Your task to perform on an android device: Is it going to rain this weekend? Image 0: 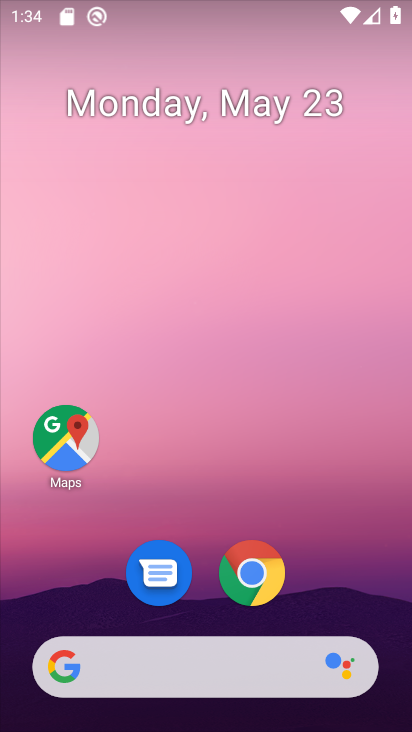
Step 0: click (211, 665)
Your task to perform on an android device: Is it going to rain this weekend? Image 1: 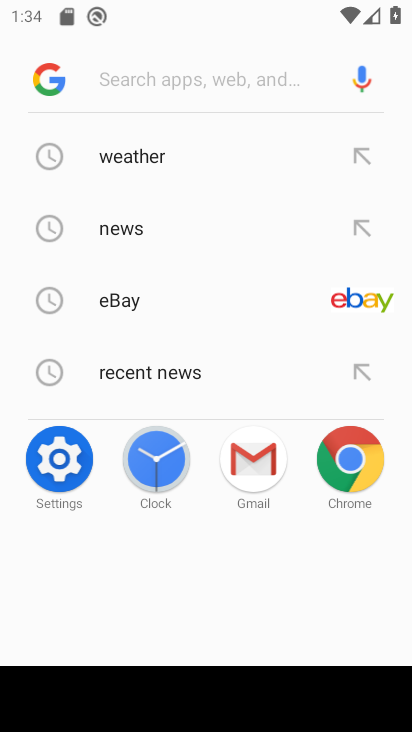
Step 1: click (137, 153)
Your task to perform on an android device: Is it going to rain this weekend? Image 2: 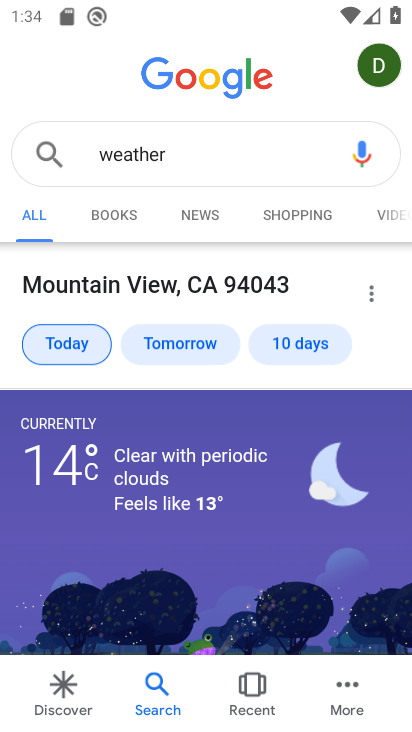
Step 2: click (301, 337)
Your task to perform on an android device: Is it going to rain this weekend? Image 3: 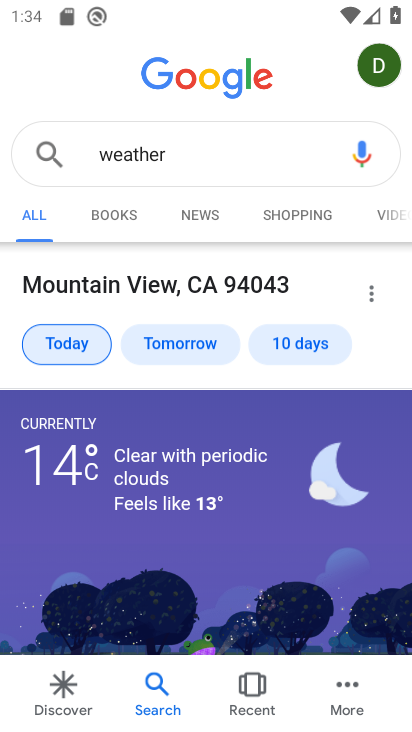
Step 3: click (301, 337)
Your task to perform on an android device: Is it going to rain this weekend? Image 4: 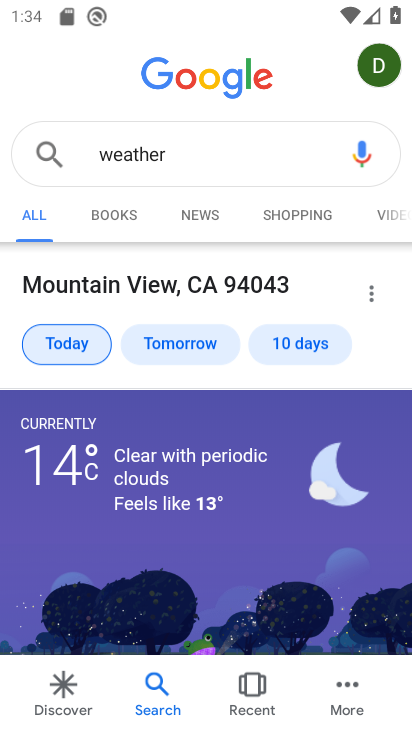
Step 4: click (301, 337)
Your task to perform on an android device: Is it going to rain this weekend? Image 5: 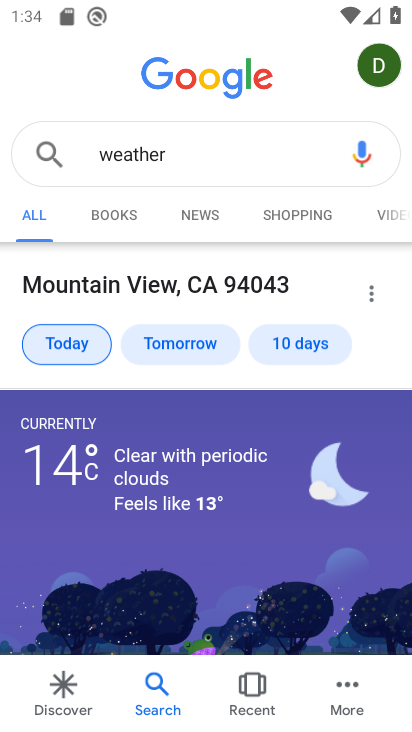
Step 5: click (301, 337)
Your task to perform on an android device: Is it going to rain this weekend? Image 6: 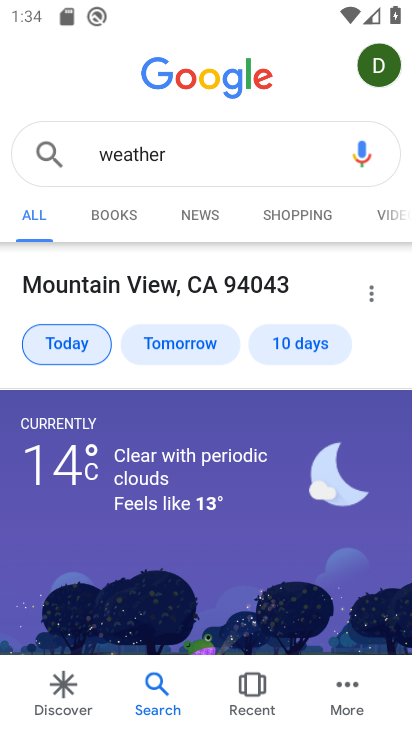
Step 6: click (301, 337)
Your task to perform on an android device: Is it going to rain this weekend? Image 7: 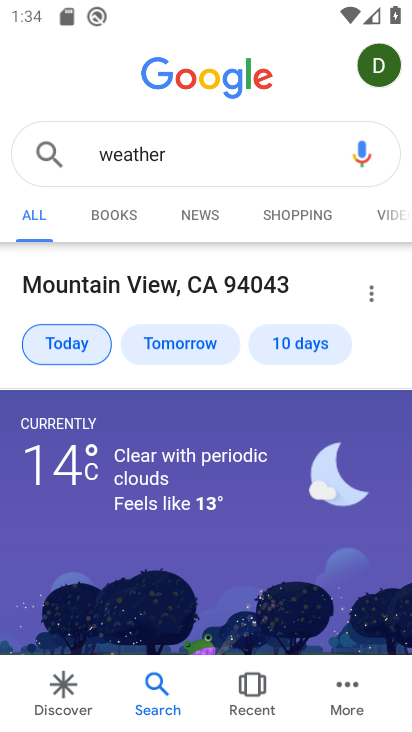
Step 7: click (301, 337)
Your task to perform on an android device: Is it going to rain this weekend? Image 8: 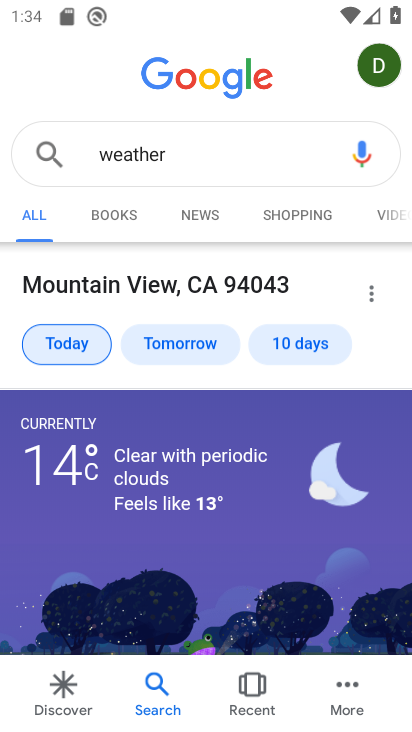
Step 8: task complete